Your task to perform on an android device: delete the emails in spam in the gmail app Image 0: 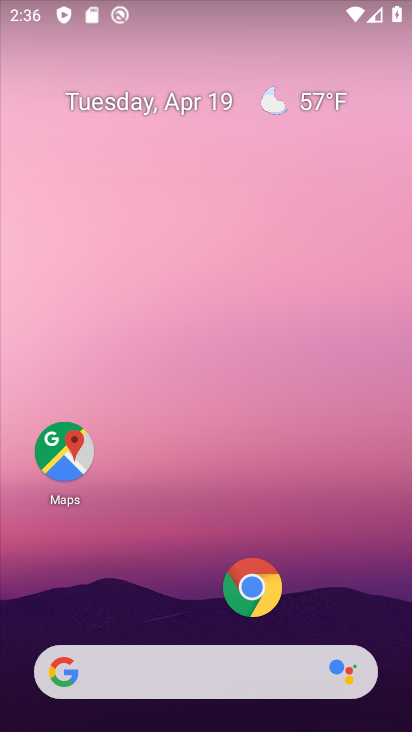
Step 0: drag from (188, 540) to (278, 29)
Your task to perform on an android device: delete the emails in spam in the gmail app Image 1: 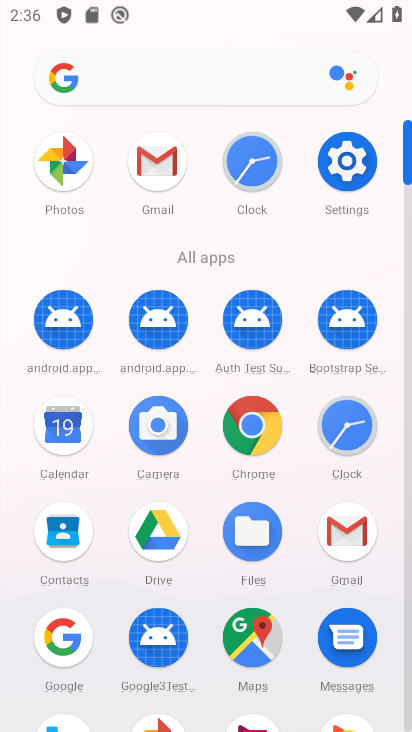
Step 1: click (355, 522)
Your task to perform on an android device: delete the emails in spam in the gmail app Image 2: 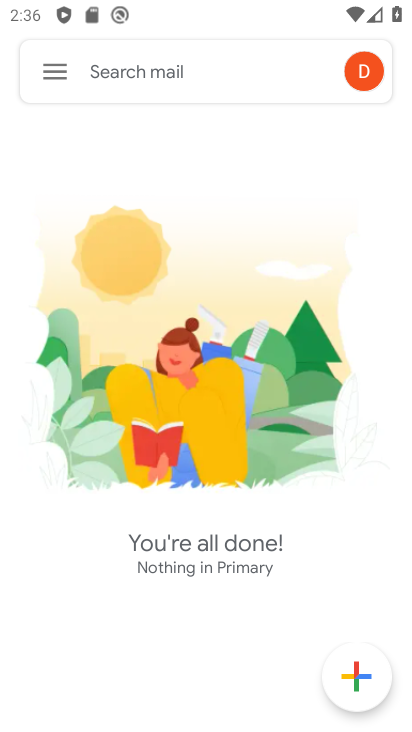
Step 2: click (51, 73)
Your task to perform on an android device: delete the emails in spam in the gmail app Image 3: 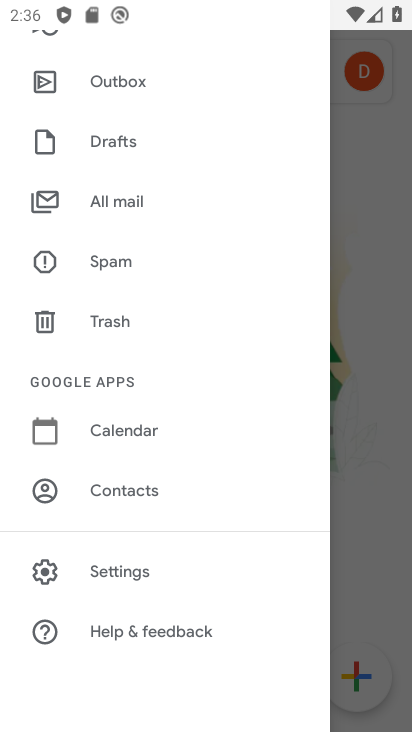
Step 3: click (124, 264)
Your task to perform on an android device: delete the emails in spam in the gmail app Image 4: 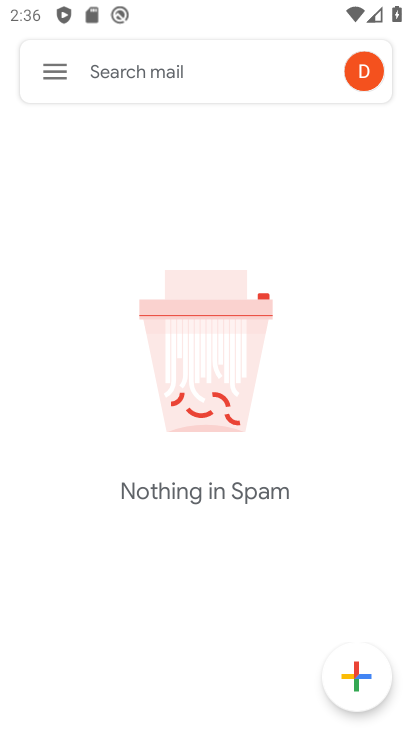
Step 4: task complete